Your task to perform on an android device: Open calendar and show me the first week of next month Image 0: 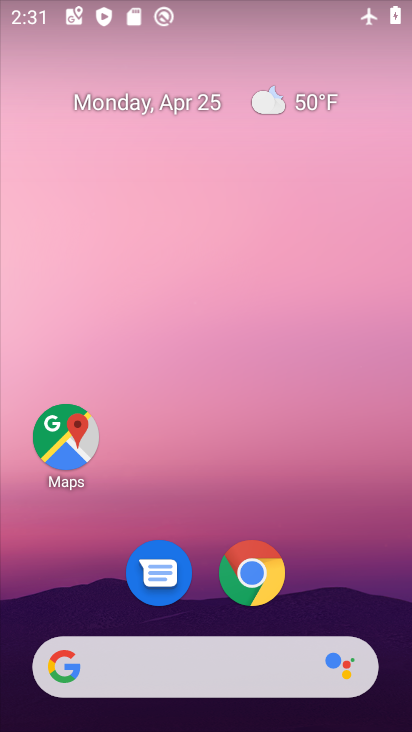
Step 0: drag from (361, 412) to (375, 102)
Your task to perform on an android device: Open calendar and show me the first week of next month Image 1: 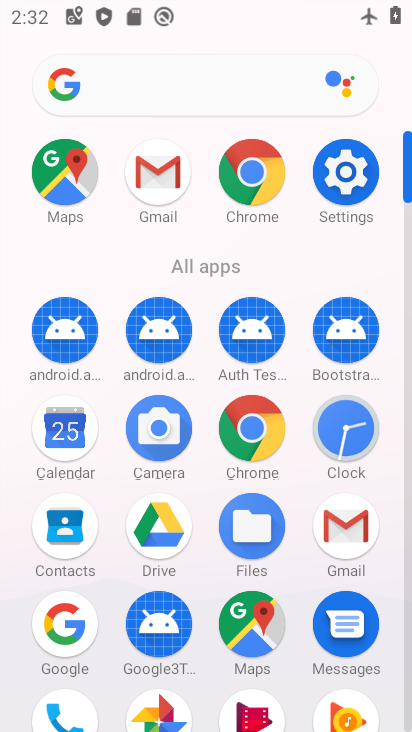
Step 1: click (65, 440)
Your task to perform on an android device: Open calendar and show me the first week of next month Image 2: 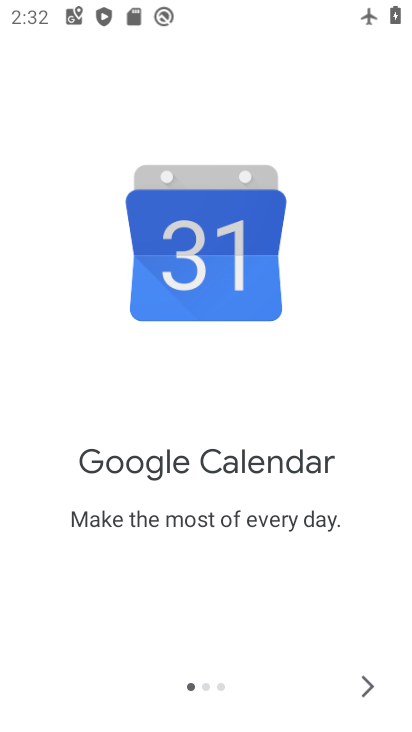
Step 2: click (361, 698)
Your task to perform on an android device: Open calendar and show me the first week of next month Image 3: 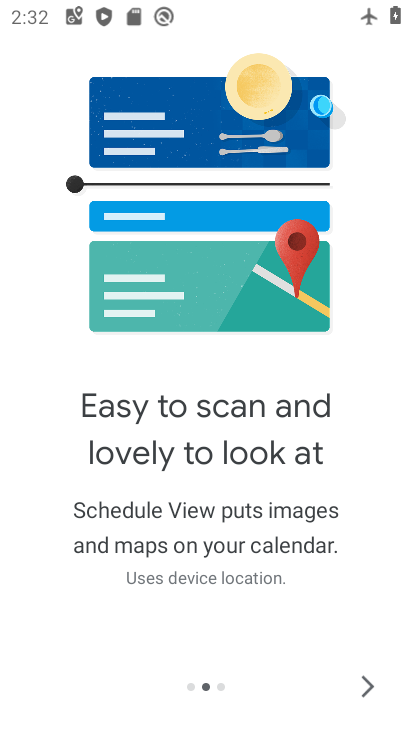
Step 3: click (362, 696)
Your task to perform on an android device: Open calendar and show me the first week of next month Image 4: 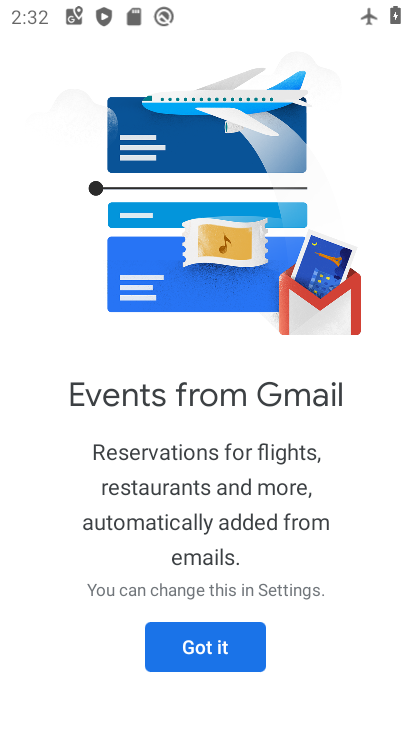
Step 4: click (226, 658)
Your task to perform on an android device: Open calendar and show me the first week of next month Image 5: 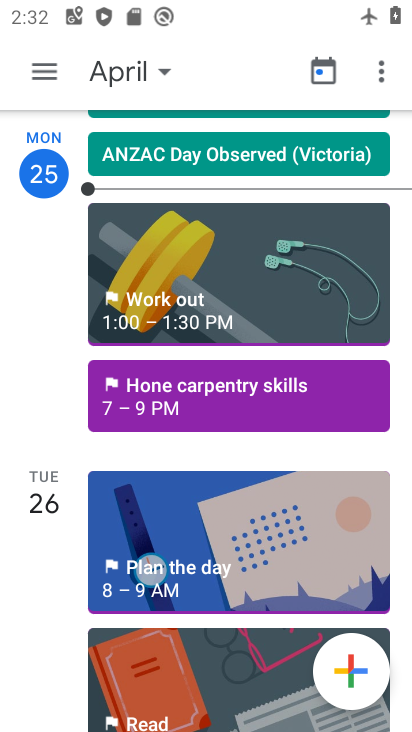
Step 5: click (133, 65)
Your task to perform on an android device: Open calendar and show me the first week of next month Image 6: 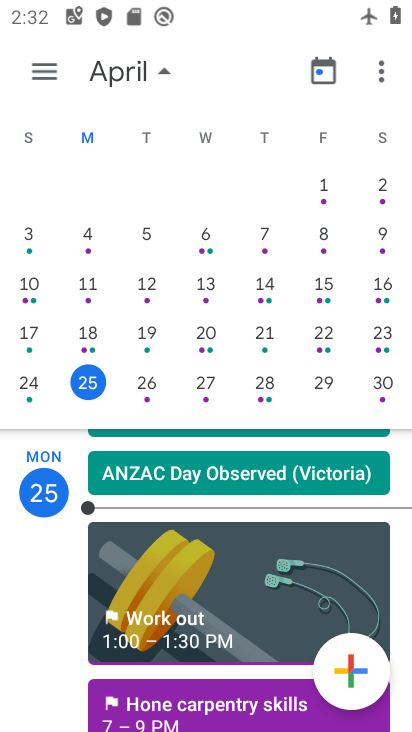
Step 6: drag from (358, 329) to (6, 653)
Your task to perform on an android device: Open calendar and show me the first week of next month Image 7: 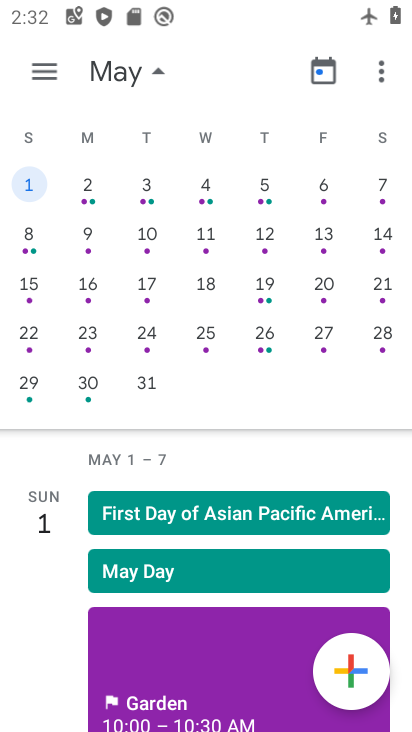
Step 7: click (328, 197)
Your task to perform on an android device: Open calendar and show me the first week of next month Image 8: 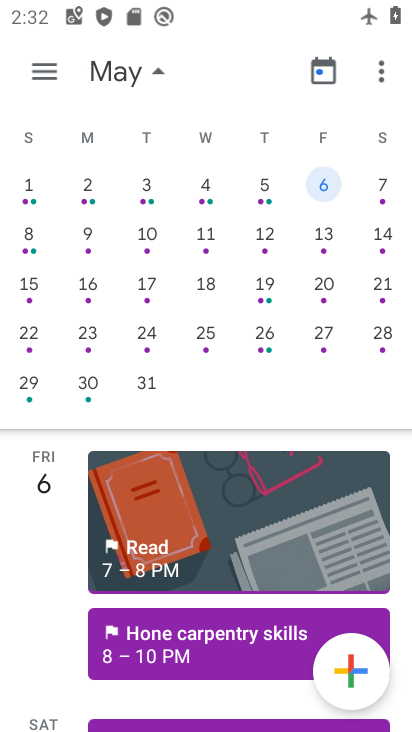
Step 8: task complete